Your task to perform on an android device: Open Google Image 0: 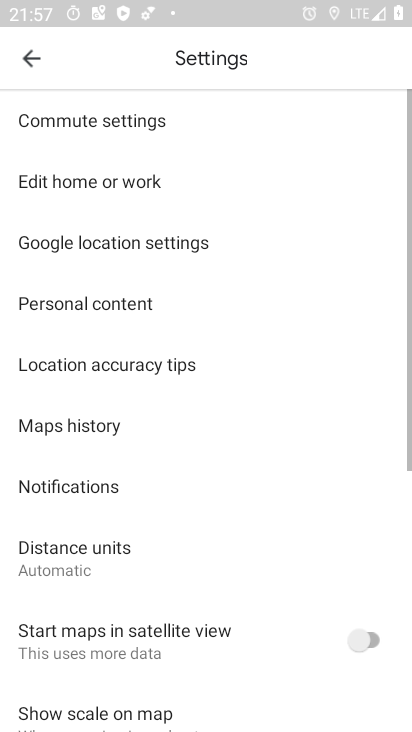
Step 0: press home button
Your task to perform on an android device: Open Google Image 1: 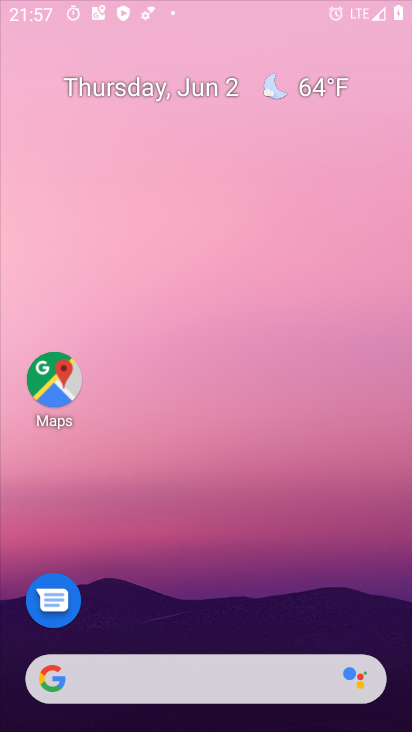
Step 1: drag from (179, 643) to (202, 147)
Your task to perform on an android device: Open Google Image 2: 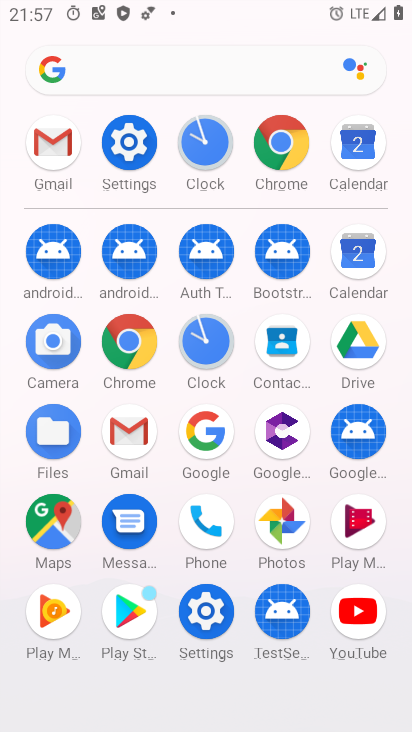
Step 2: click (202, 428)
Your task to perform on an android device: Open Google Image 3: 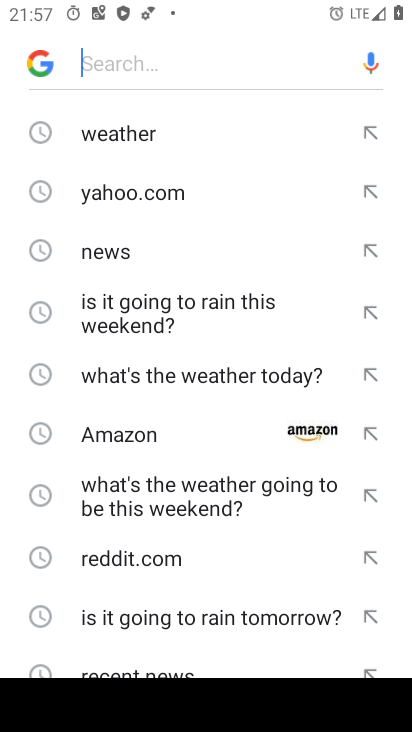
Step 3: task complete